Your task to perform on an android device: turn on the 24-hour format for clock Image 0: 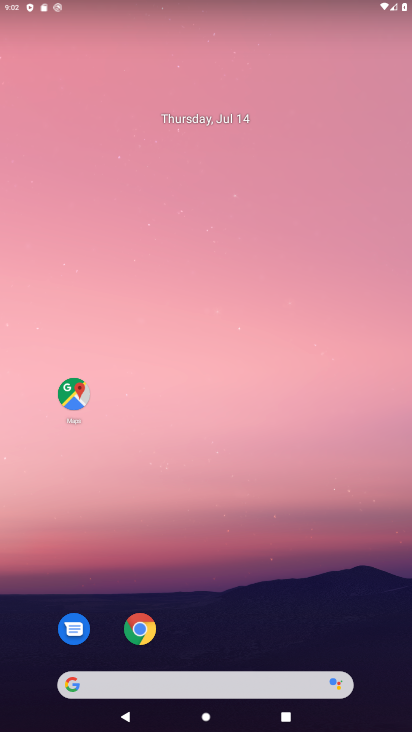
Step 0: drag from (209, 633) to (233, 134)
Your task to perform on an android device: turn on the 24-hour format for clock Image 1: 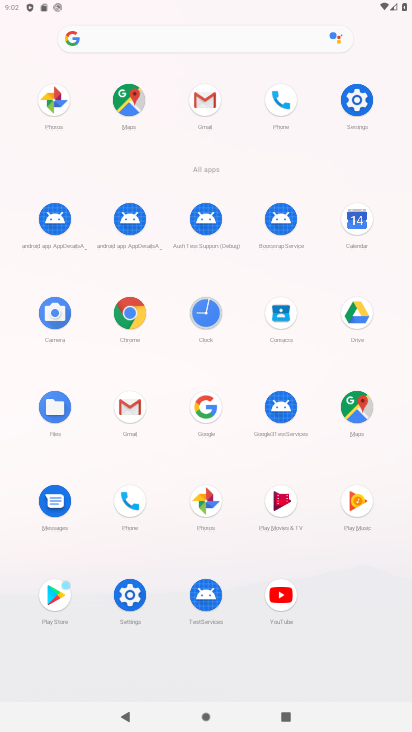
Step 1: click (357, 225)
Your task to perform on an android device: turn on the 24-hour format for clock Image 2: 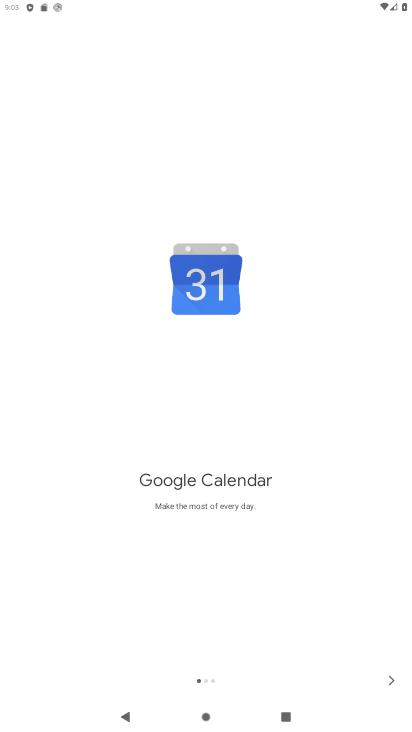
Step 2: click (368, 669)
Your task to perform on an android device: turn on the 24-hour format for clock Image 3: 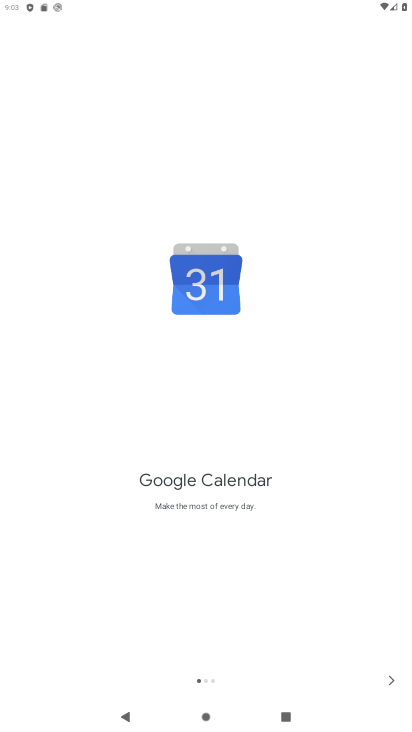
Step 3: click (396, 676)
Your task to perform on an android device: turn on the 24-hour format for clock Image 4: 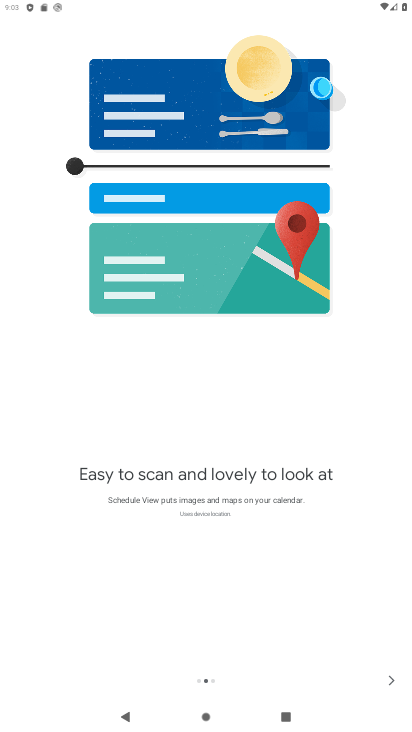
Step 4: click (383, 670)
Your task to perform on an android device: turn on the 24-hour format for clock Image 5: 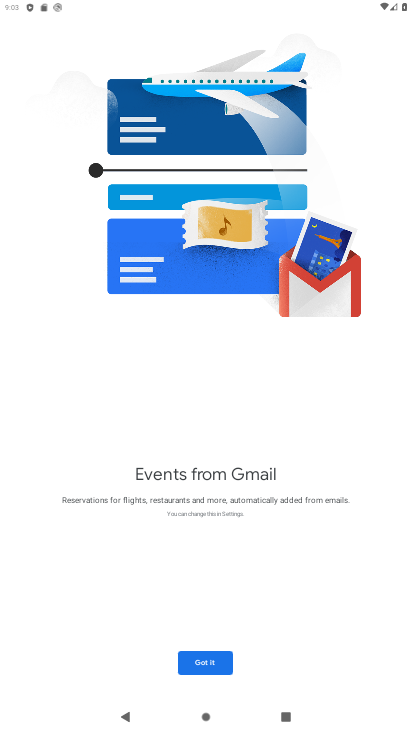
Step 5: click (211, 663)
Your task to perform on an android device: turn on the 24-hour format for clock Image 6: 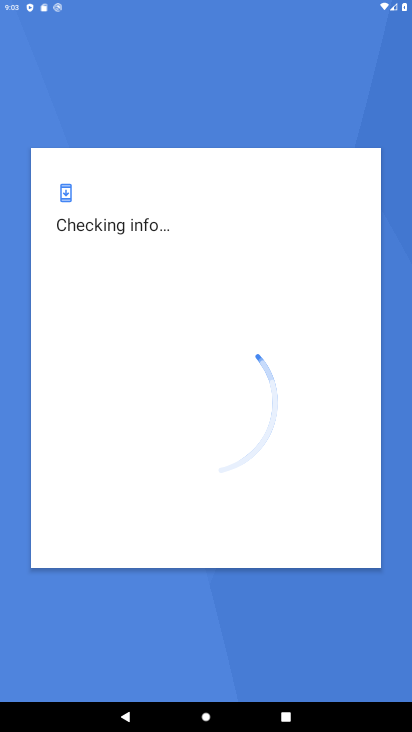
Step 6: task complete